Your task to perform on an android device: Check the news Image 0: 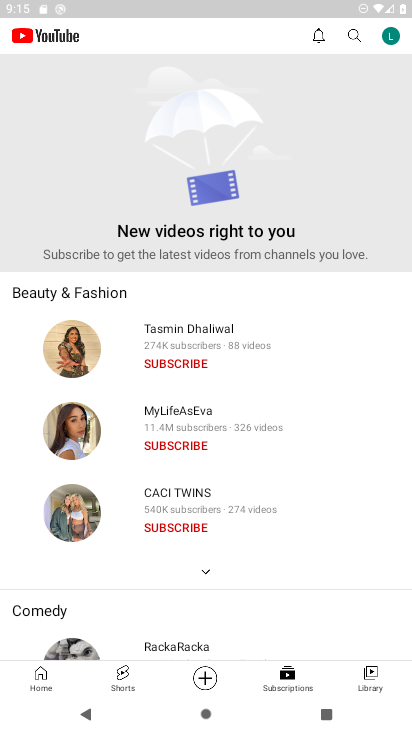
Step 0: press home button
Your task to perform on an android device: Check the news Image 1: 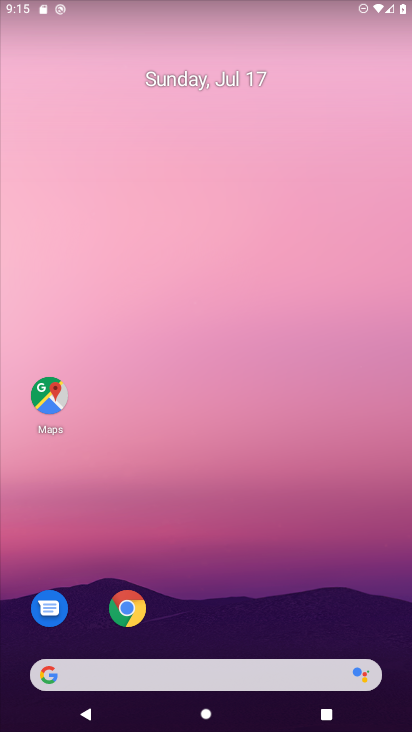
Step 1: drag from (181, 664) to (194, 121)
Your task to perform on an android device: Check the news Image 2: 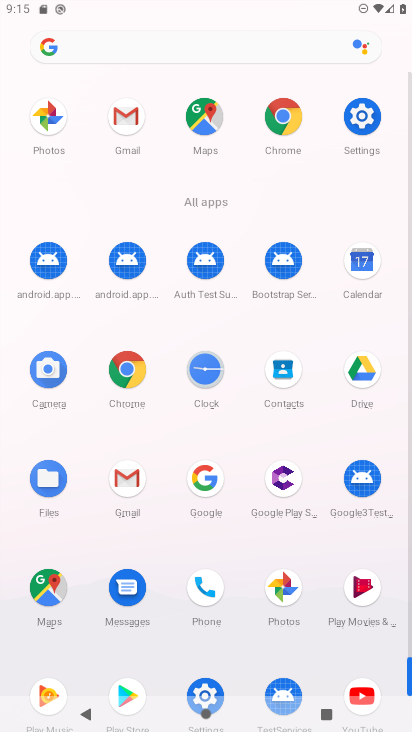
Step 2: click (203, 478)
Your task to perform on an android device: Check the news Image 3: 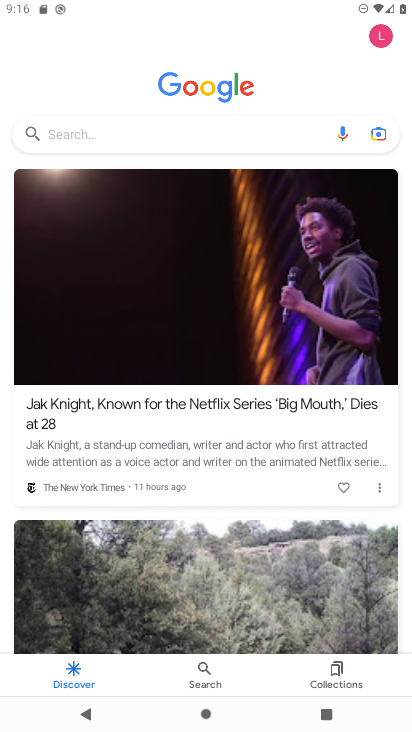
Step 3: click (210, 402)
Your task to perform on an android device: Check the news Image 4: 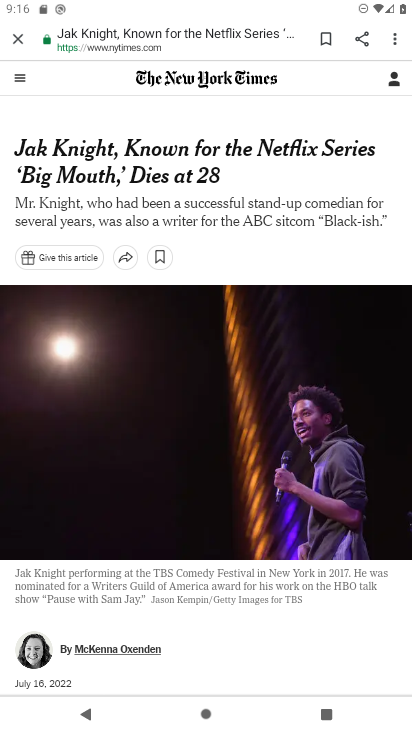
Step 4: task complete